Your task to perform on an android device: turn on bluetooth scan Image 0: 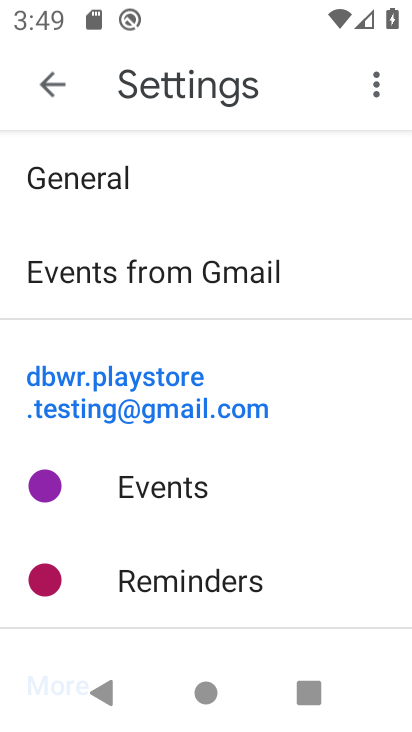
Step 0: press home button
Your task to perform on an android device: turn on bluetooth scan Image 1: 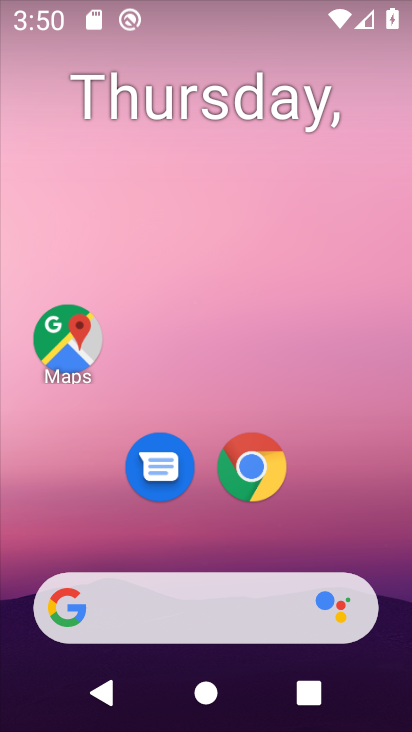
Step 1: drag from (196, 555) to (279, 5)
Your task to perform on an android device: turn on bluetooth scan Image 2: 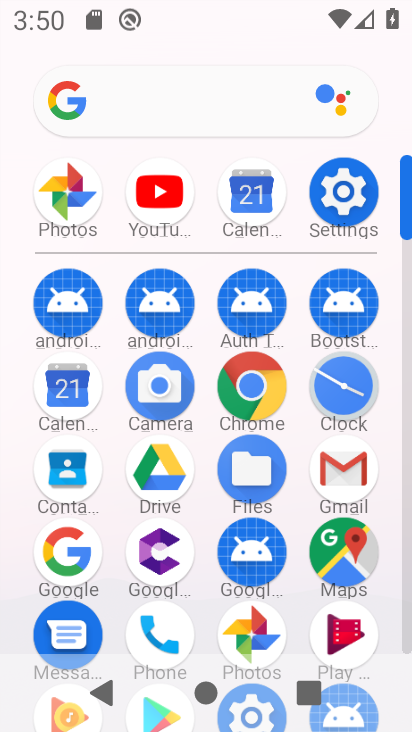
Step 2: click (336, 204)
Your task to perform on an android device: turn on bluetooth scan Image 3: 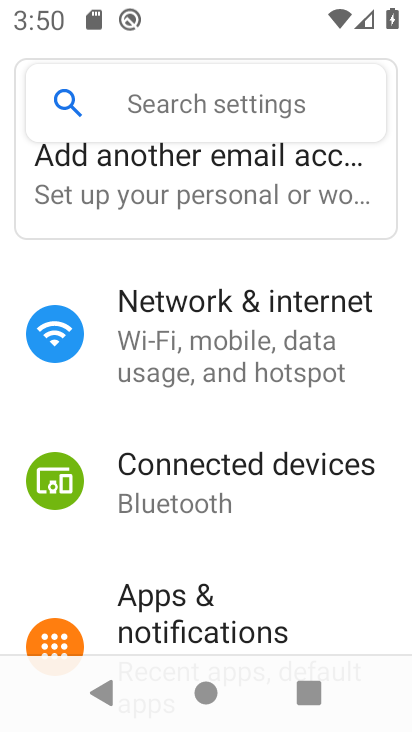
Step 3: drag from (224, 494) to (278, 263)
Your task to perform on an android device: turn on bluetooth scan Image 4: 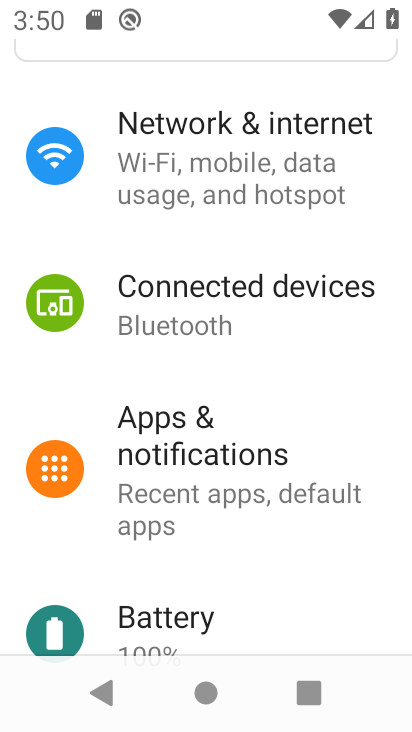
Step 4: drag from (193, 495) to (224, 232)
Your task to perform on an android device: turn on bluetooth scan Image 5: 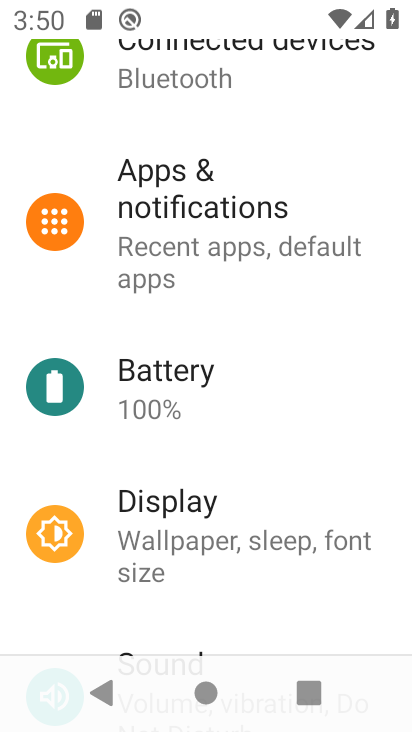
Step 5: click (186, 390)
Your task to perform on an android device: turn on bluetooth scan Image 6: 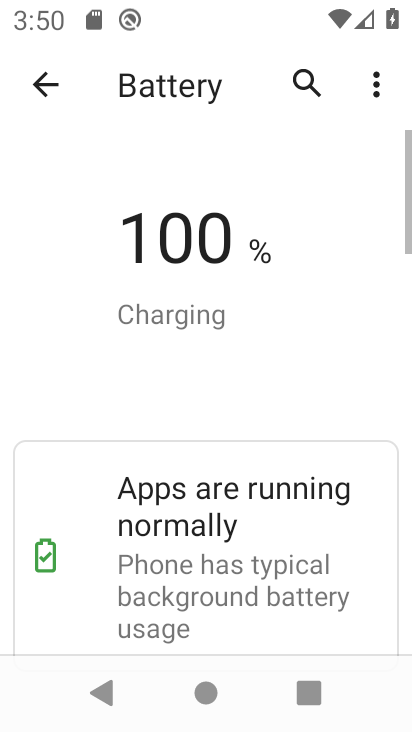
Step 6: click (55, 94)
Your task to perform on an android device: turn on bluetooth scan Image 7: 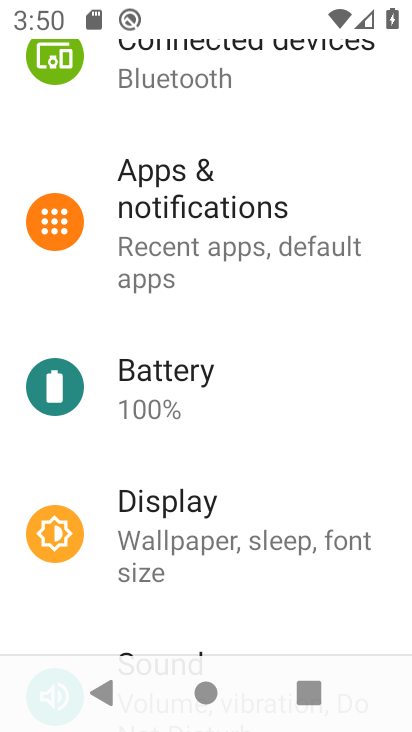
Step 7: drag from (192, 550) to (245, 210)
Your task to perform on an android device: turn on bluetooth scan Image 8: 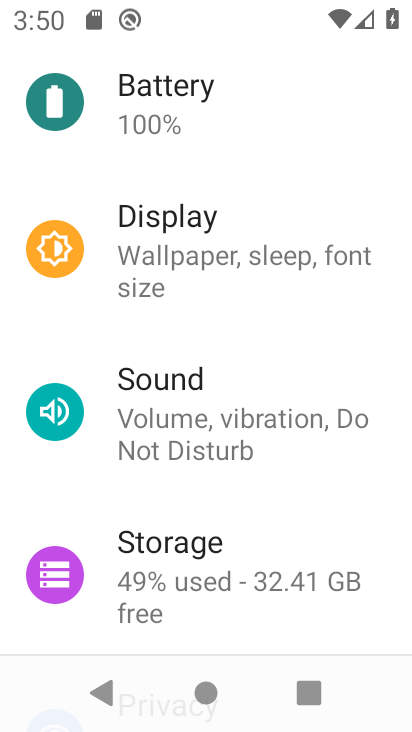
Step 8: drag from (177, 486) to (230, 189)
Your task to perform on an android device: turn on bluetooth scan Image 9: 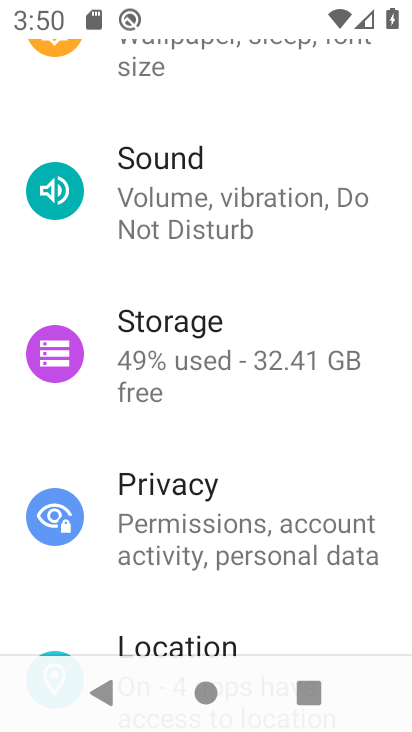
Step 9: drag from (202, 574) to (230, 274)
Your task to perform on an android device: turn on bluetooth scan Image 10: 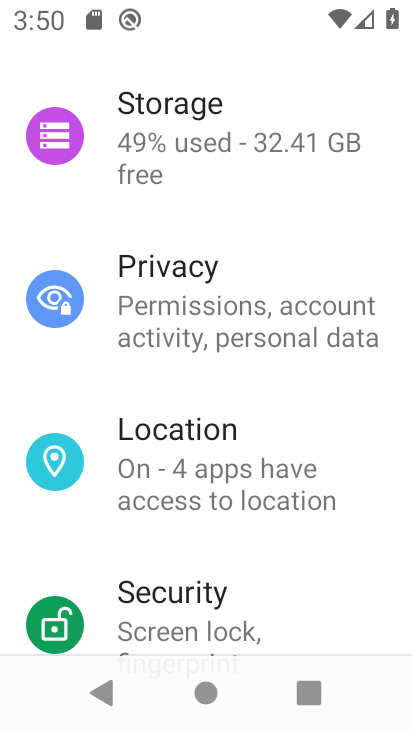
Step 10: click (216, 486)
Your task to perform on an android device: turn on bluetooth scan Image 11: 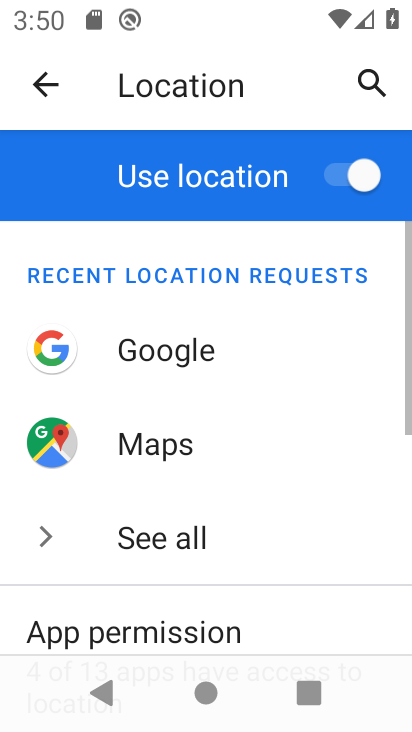
Step 11: drag from (198, 550) to (296, 148)
Your task to perform on an android device: turn on bluetooth scan Image 12: 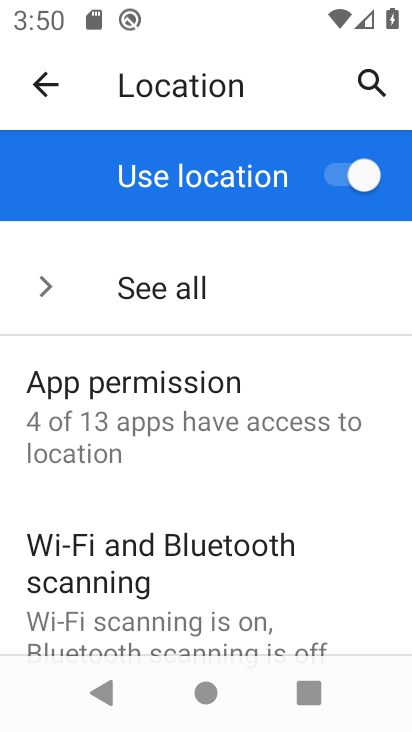
Step 12: click (192, 560)
Your task to perform on an android device: turn on bluetooth scan Image 13: 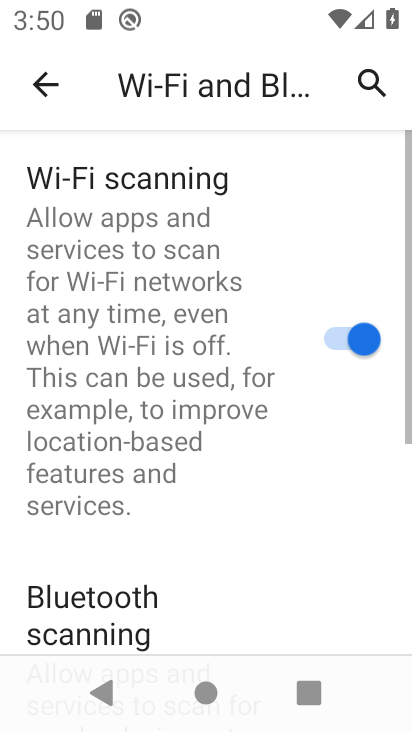
Step 13: drag from (182, 562) to (235, 238)
Your task to perform on an android device: turn on bluetooth scan Image 14: 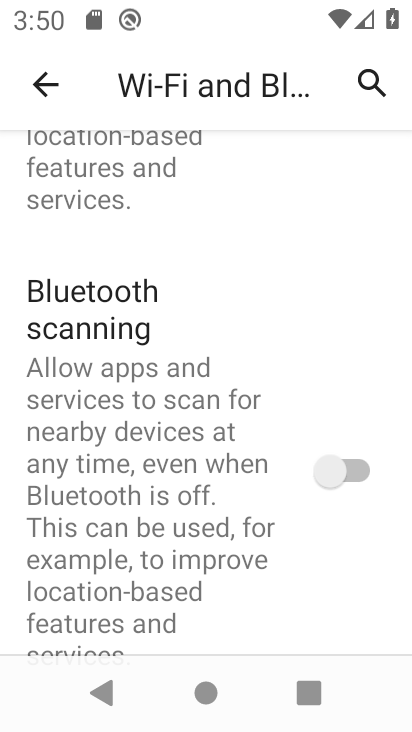
Step 14: click (341, 480)
Your task to perform on an android device: turn on bluetooth scan Image 15: 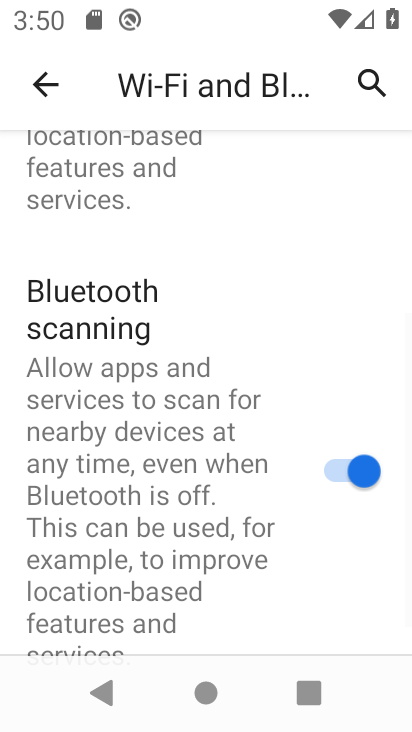
Step 15: task complete